Your task to perform on an android device: toggle notifications settings in the gmail app Image 0: 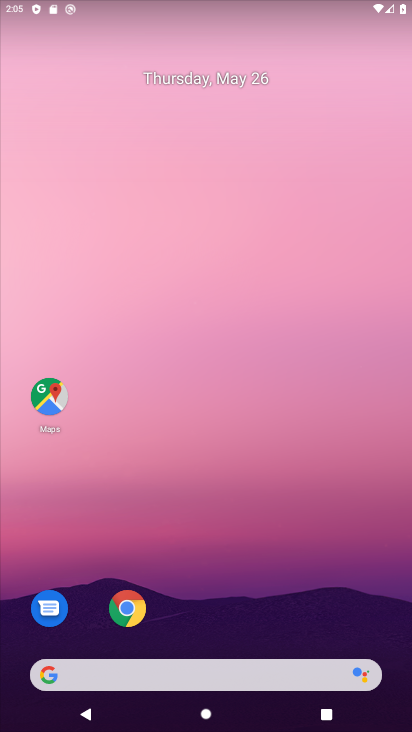
Step 0: drag from (334, 445) to (343, 125)
Your task to perform on an android device: toggle notifications settings in the gmail app Image 1: 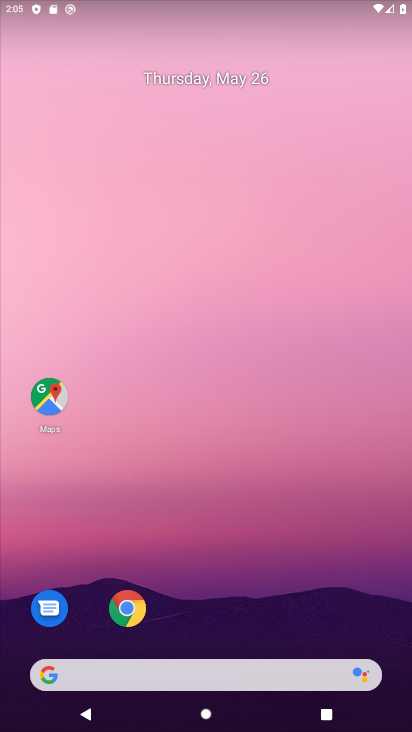
Step 1: drag from (333, 614) to (410, 190)
Your task to perform on an android device: toggle notifications settings in the gmail app Image 2: 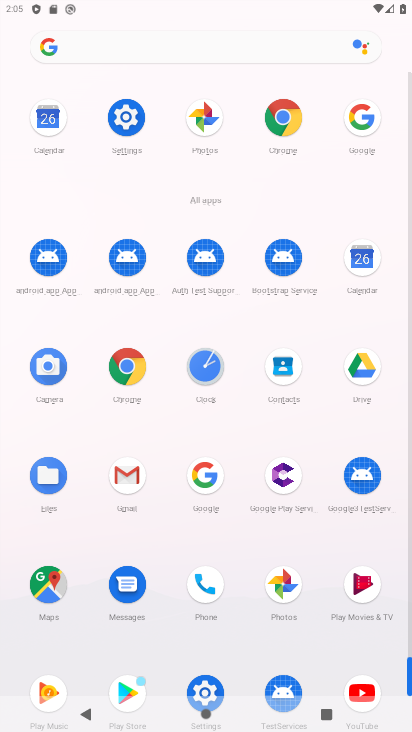
Step 2: click (126, 483)
Your task to perform on an android device: toggle notifications settings in the gmail app Image 3: 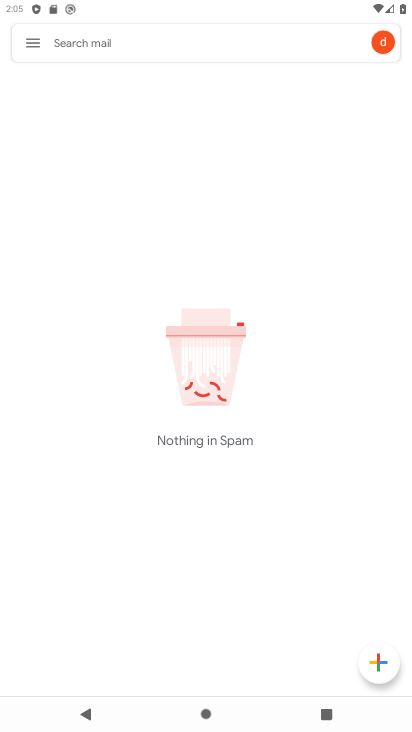
Step 3: click (27, 38)
Your task to perform on an android device: toggle notifications settings in the gmail app Image 4: 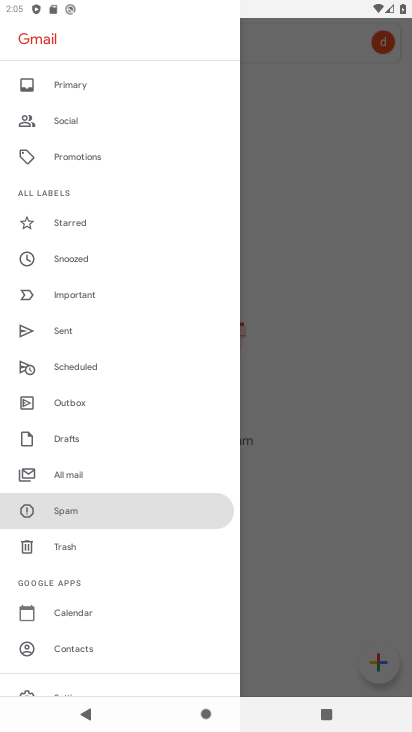
Step 4: drag from (94, 603) to (77, 301)
Your task to perform on an android device: toggle notifications settings in the gmail app Image 5: 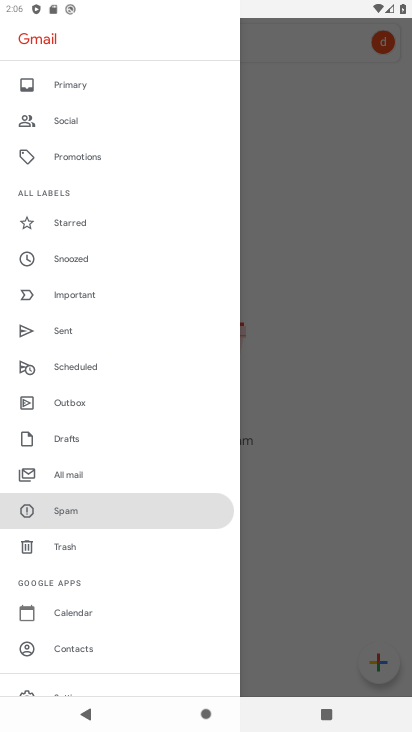
Step 5: drag from (144, 598) to (198, 257)
Your task to perform on an android device: toggle notifications settings in the gmail app Image 6: 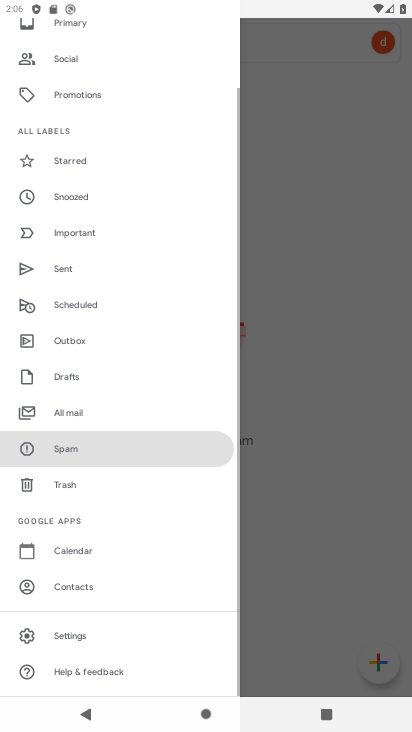
Step 6: click (64, 635)
Your task to perform on an android device: toggle notifications settings in the gmail app Image 7: 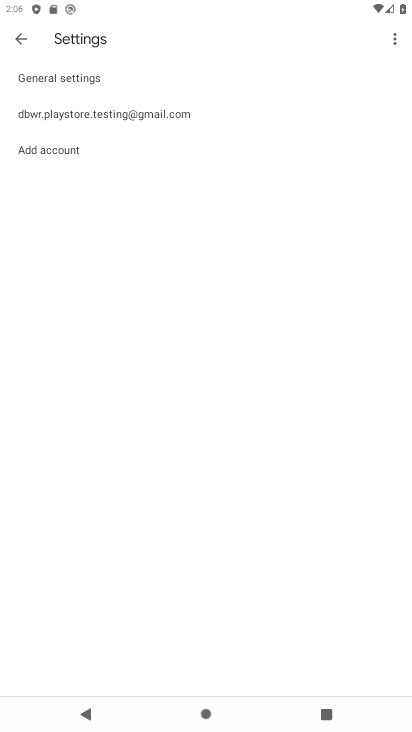
Step 7: click (87, 127)
Your task to perform on an android device: toggle notifications settings in the gmail app Image 8: 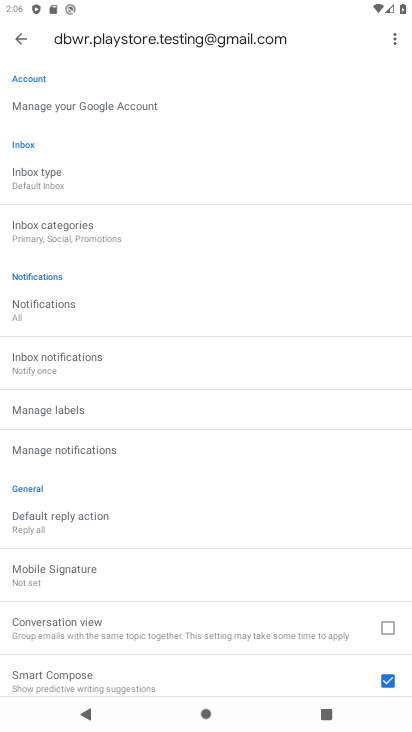
Step 8: click (44, 304)
Your task to perform on an android device: toggle notifications settings in the gmail app Image 9: 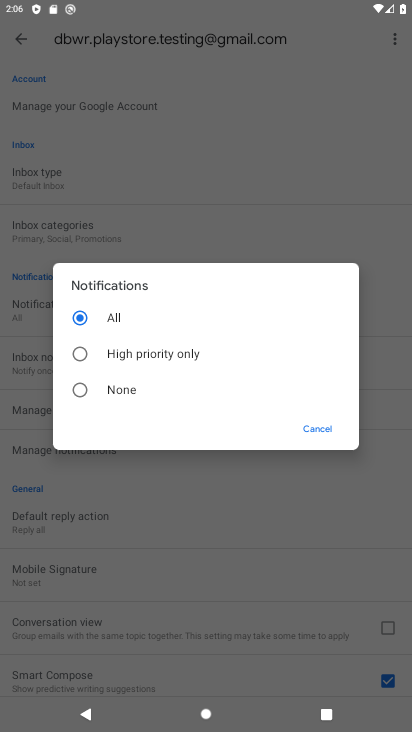
Step 9: click (68, 356)
Your task to perform on an android device: toggle notifications settings in the gmail app Image 10: 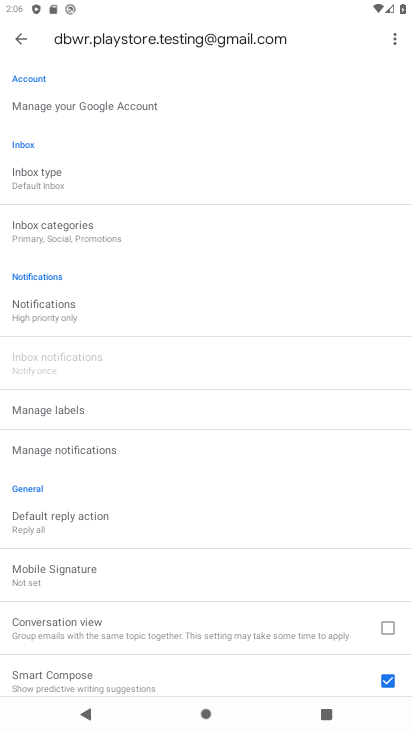
Step 10: task complete